Your task to perform on an android device: Search for Mexican restaurants on Maps Image 0: 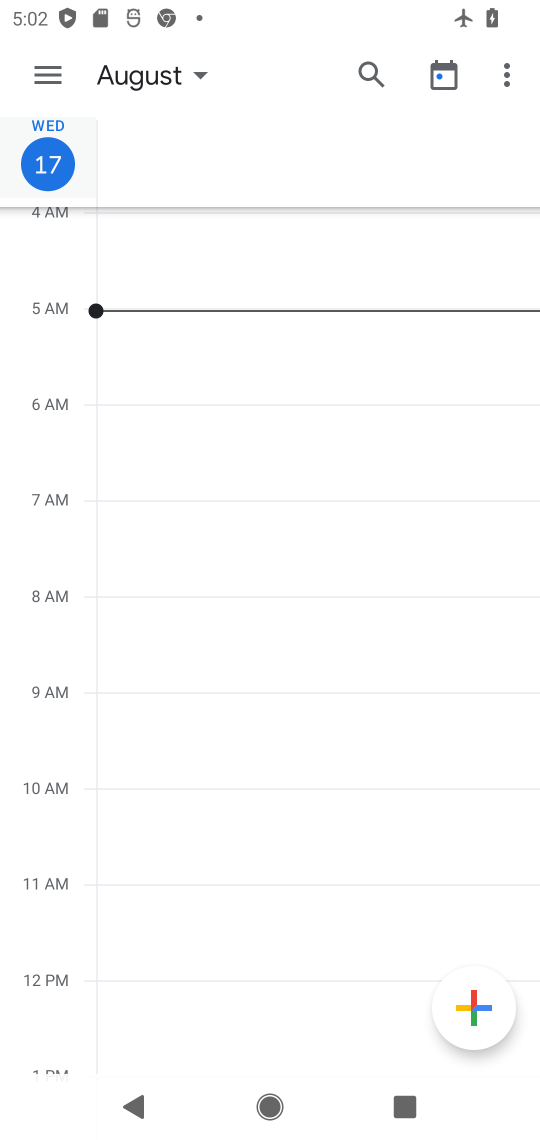
Step 0: press home button
Your task to perform on an android device: Search for Mexican restaurants on Maps Image 1: 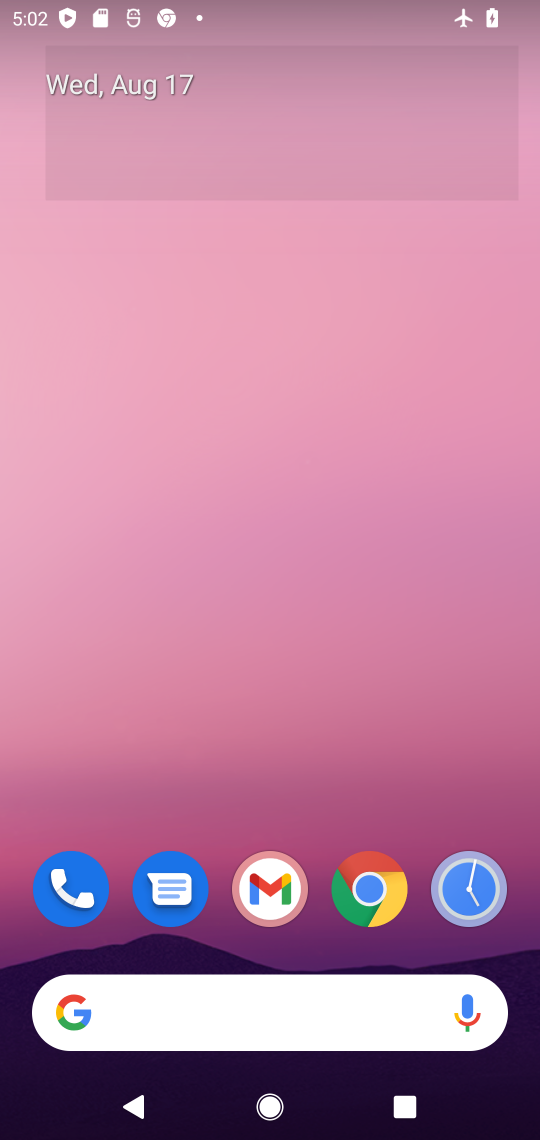
Step 1: drag from (242, 819) to (357, 57)
Your task to perform on an android device: Search for Mexican restaurants on Maps Image 2: 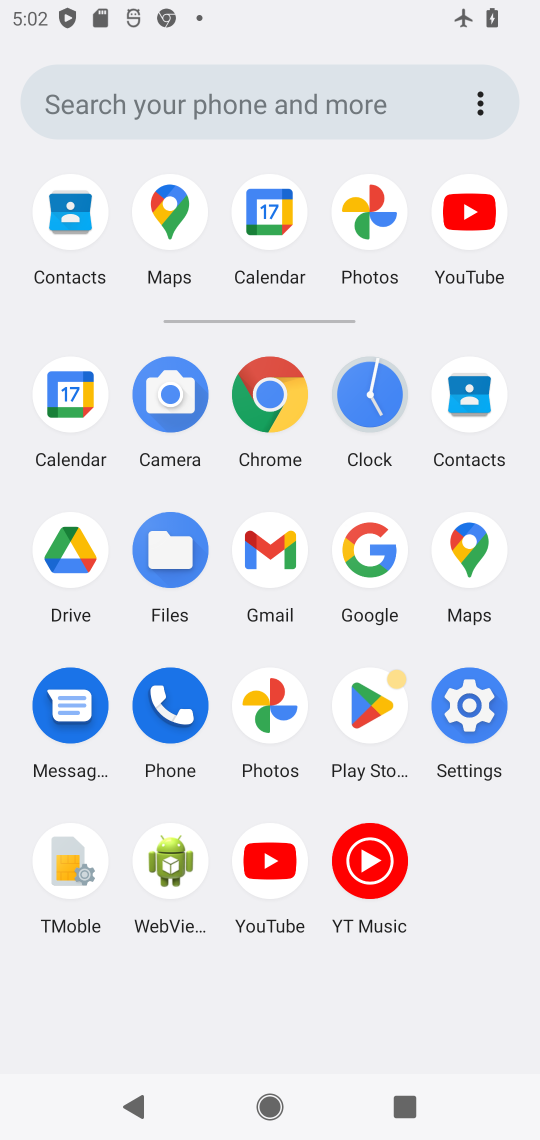
Step 2: click (165, 196)
Your task to perform on an android device: Search for Mexican restaurants on Maps Image 3: 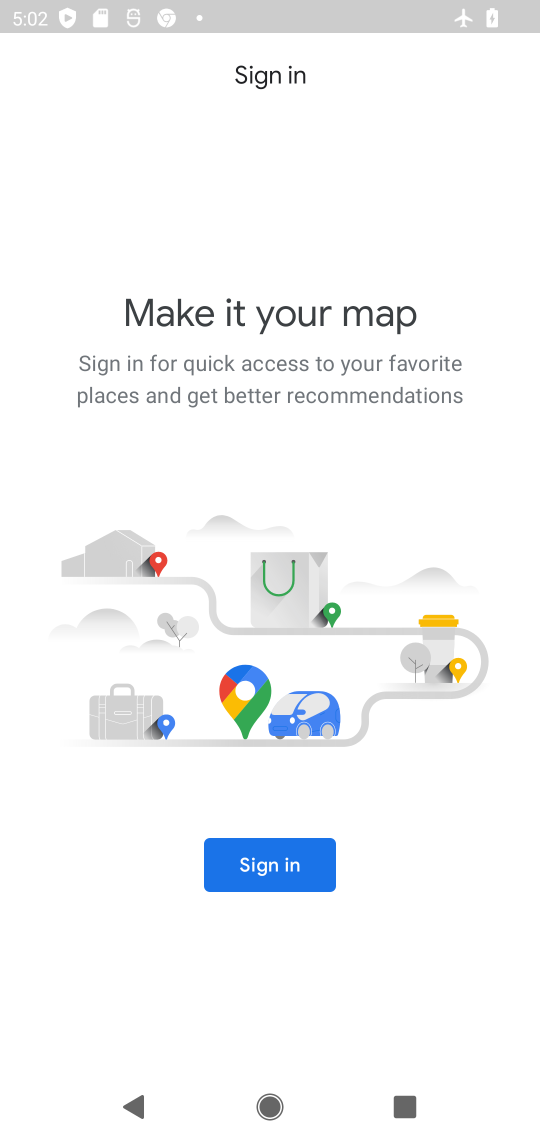
Step 3: click (296, 869)
Your task to perform on an android device: Search for Mexican restaurants on Maps Image 4: 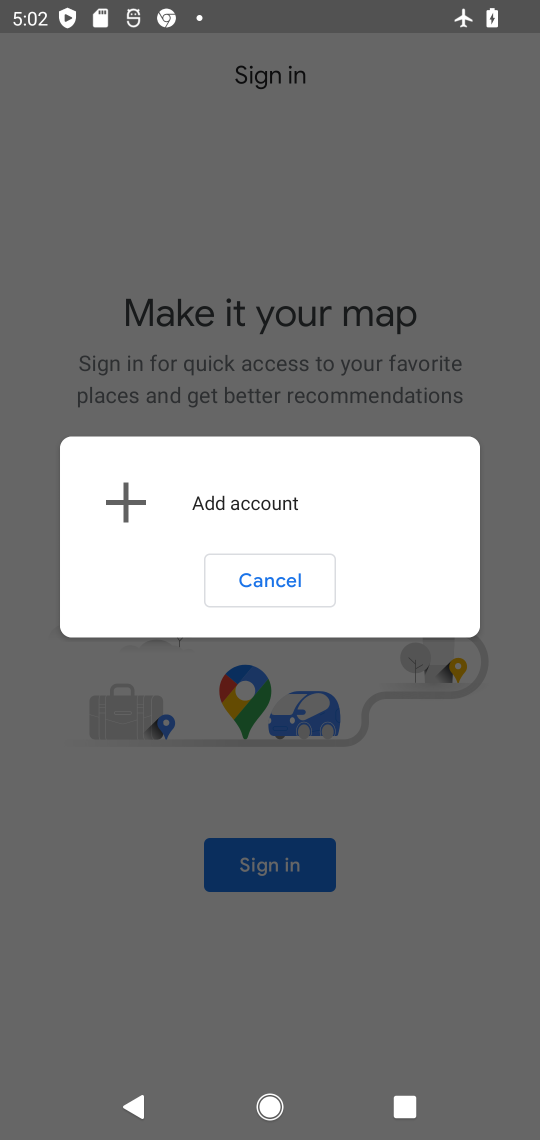
Step 4: task complete